Your task to perform on an android device: allow cookies in the chrome app Image 0: 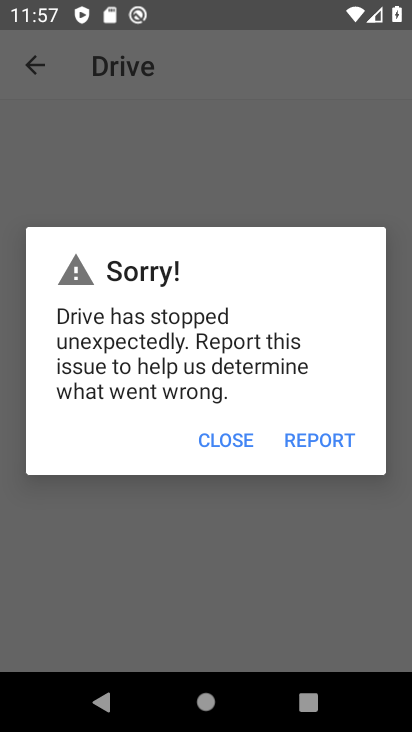
Step 0: press home button
Your task to perform on an android device: allow cookies in the chrome app Image 1: 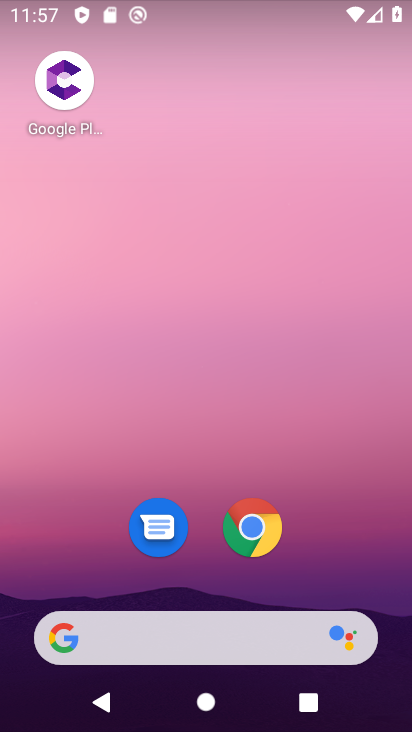
Step 1: click (268, 528)
Your task to perform on an android device: allow cookies in the chrome app Image 2: 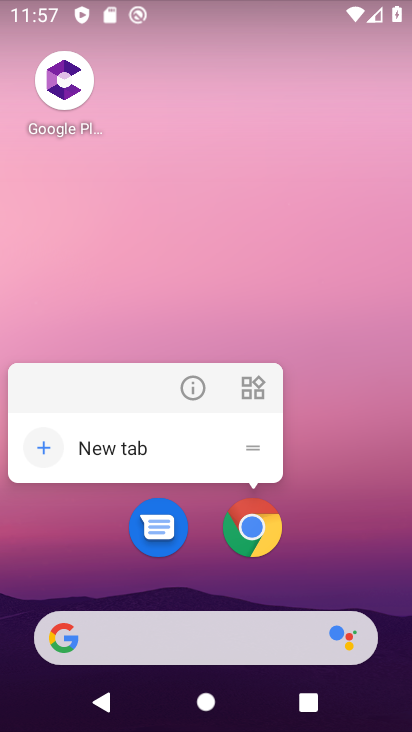
Step 2: click (264, 532)
Your task to perform on an android device: allow cookies in the chrome app Image 3: 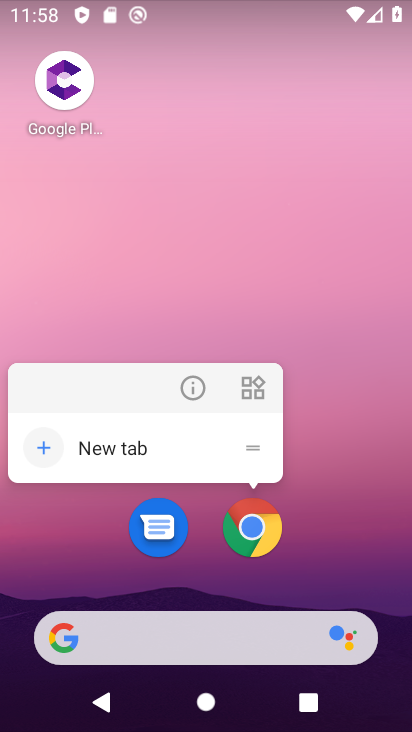
Step 3: click (264, 532)
Your task to perform on an android device: allow cookies in the chrome app Image 4: 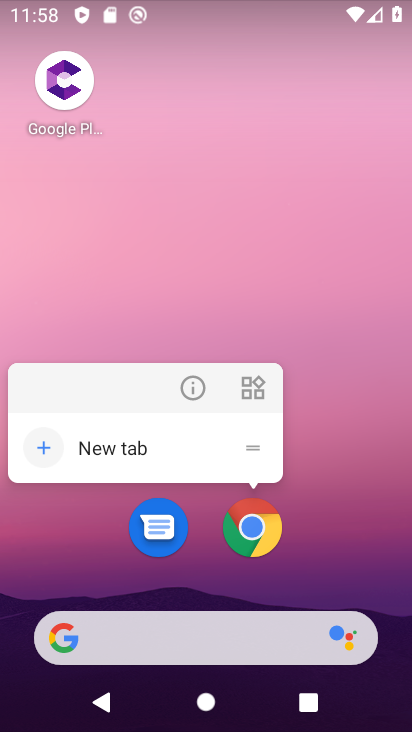
Step 4: click (273, 527)
Your task to perform on an android device: allow cookies in the chrome app Image 5: 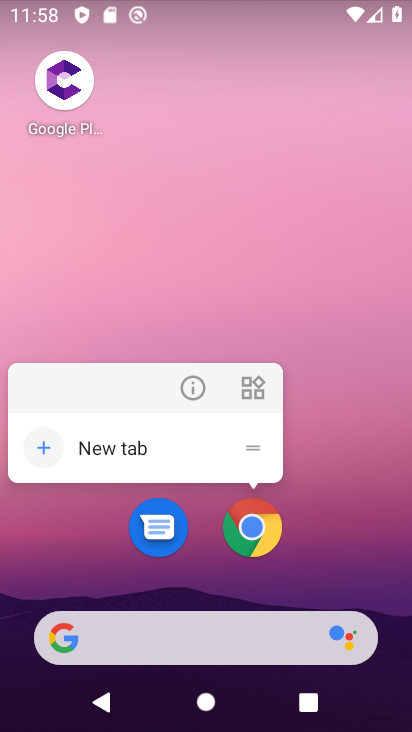
Step 5: click (273, 527)
Your task to perform on an android device: allow cookies in the chrome app Image 6: 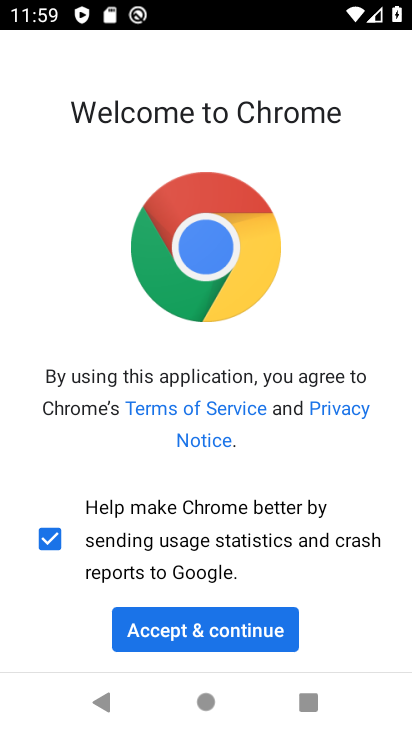
Step 6: click (143, 626)
Your task to perform on an android device: allow cookies in the chrome app Image 7: 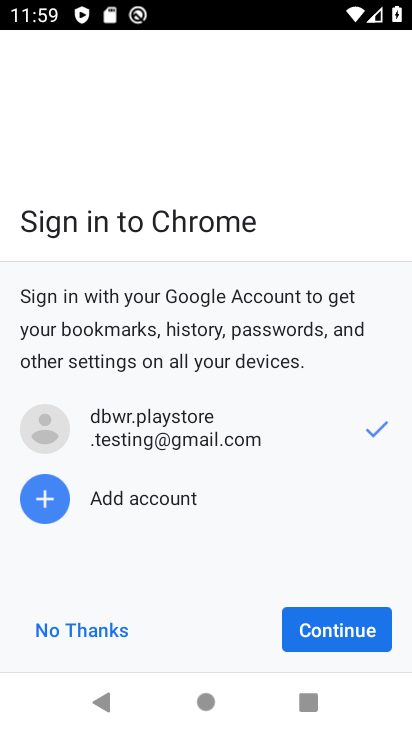
Step 7: click (346, 624)
Your task to perform on an android device: allow cookies in the chrome app Image 8: 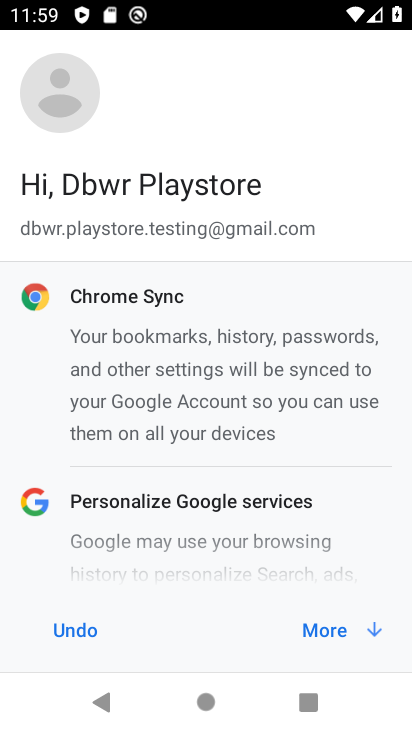
Step 8: click (324, 631)
Your task to perform on an android device: allow cookies in the chrome app Image 9: 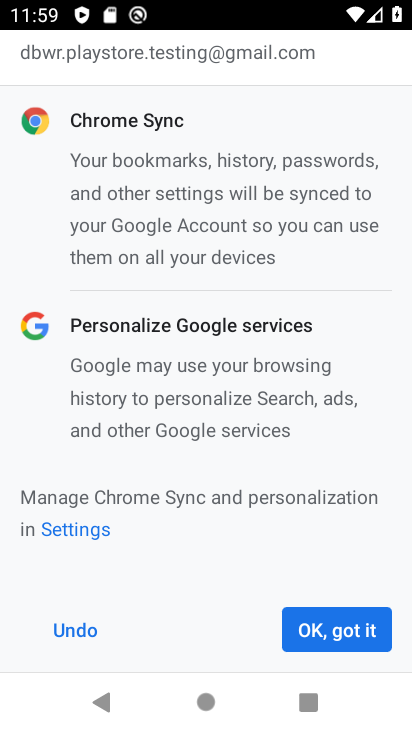
Step 9: click (324, 631)
Your task to perform on an android device: allow cookies in the chrome app Image 10: 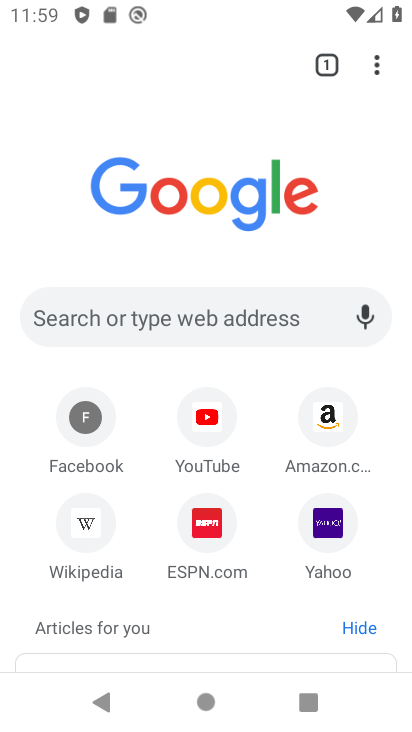
Step 10: click (371, 60)
Your task to perform on an android device: allow cookies in the chrome app Image 11: 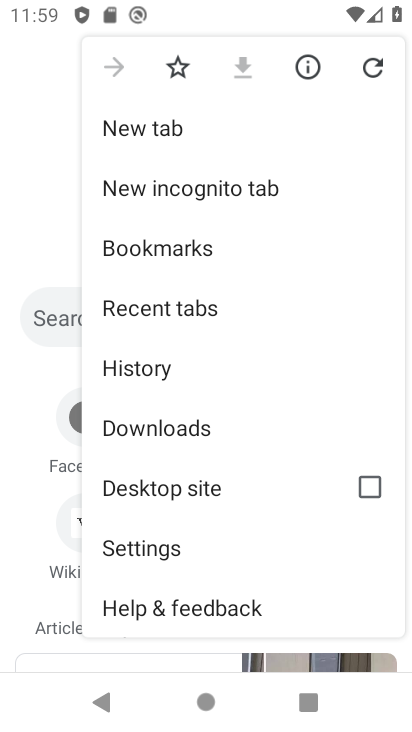
Step 11: click (182, 546)
Your task to perform on an android device: allow cookies in the chrome app Image 12: 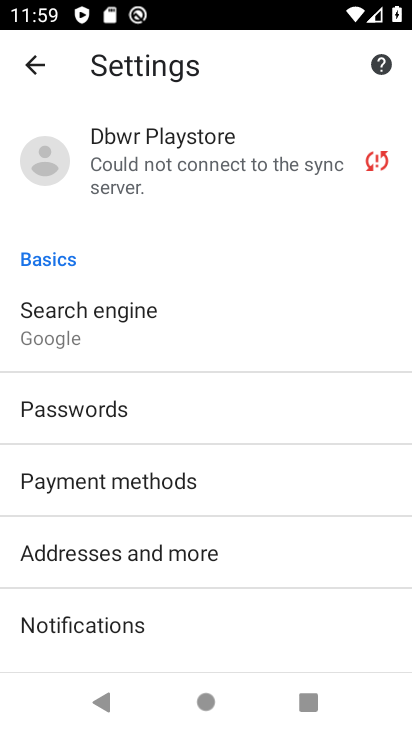
Step 12: drag from (176, 557) to (203, 111)
Your task to perform on an android device: allow cookies in the chrome app Image 13: 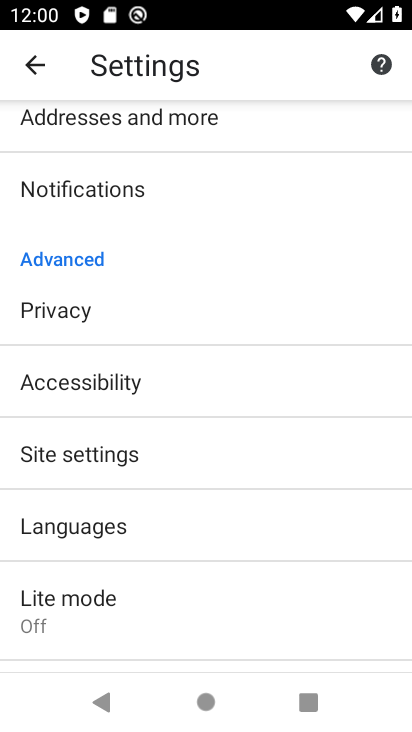
Step 13: click (144, 442)
Your task to perform on an android device: allow cookies in the chrome app Image 14: 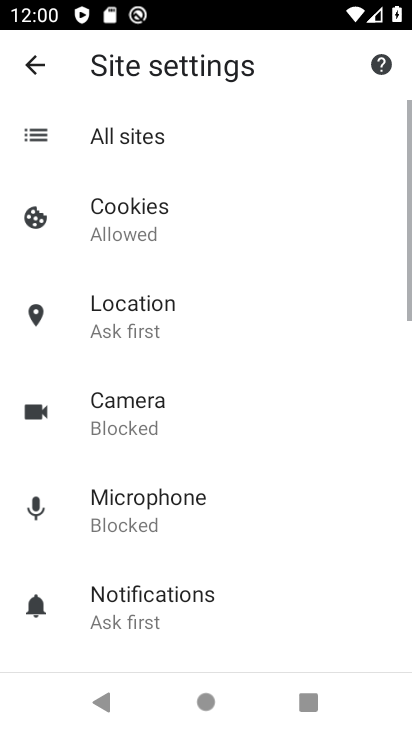
Step 14: click (147, 217)
Your task to perform on an android device: allow cookies in the chrome app Image 15: 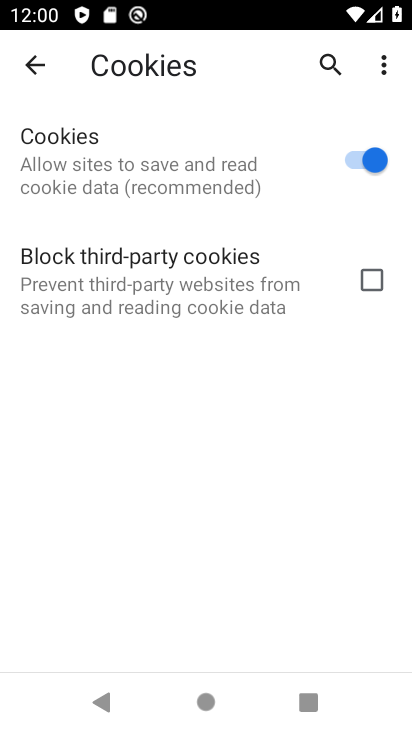
Step 15: task complete